Your task to perform on an android device: What is the recent news? Image 0: 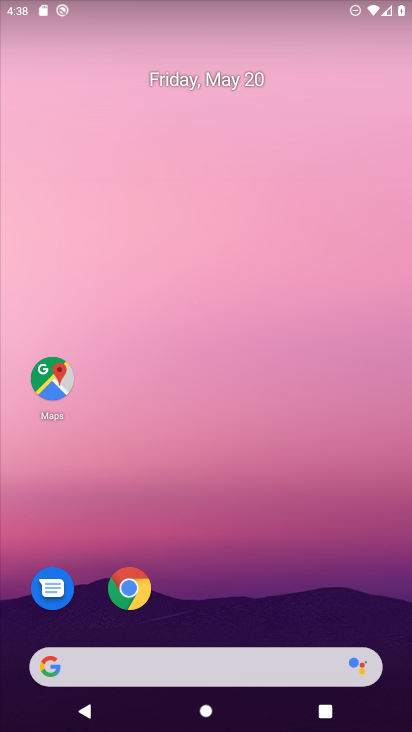
Step 0: drag from (273, 619) to (223, 255)
Your task to perform on an android device: What is the recent news? Image 1: 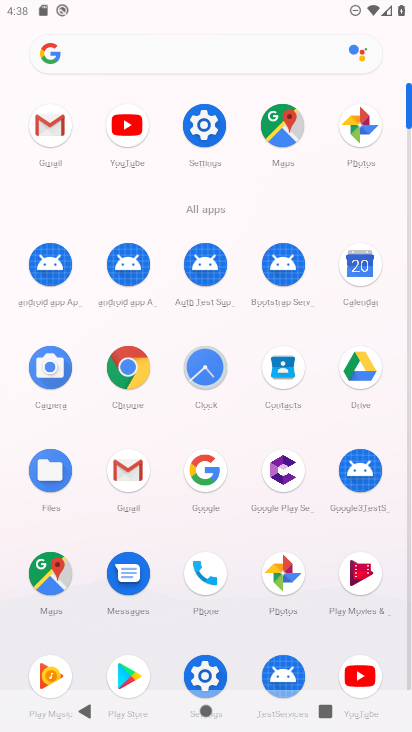
Step 1: click (135, 55)
Your task to perform on an android device: What is the recent news? Image 2: 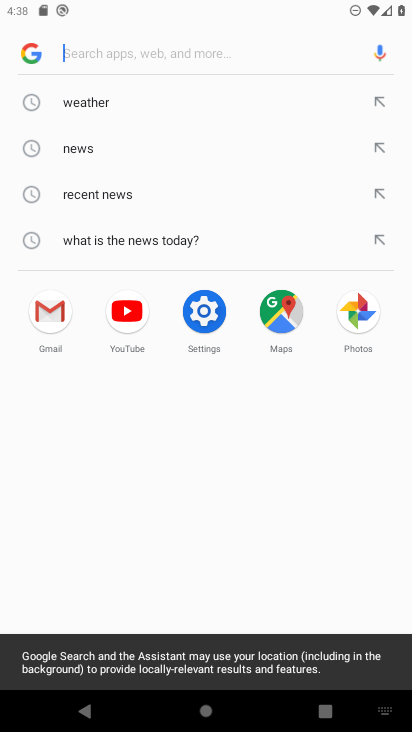
Step 2: click (83, 188)
Your task to perform on an android device: What is the recent news? Image 3: 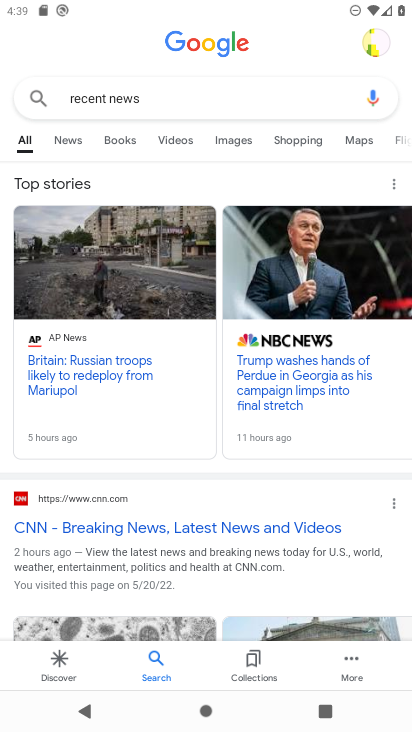
Step 3: task complete